Your task to perform on an android device: open app "DoorDash - Food Delivery" (install if not already installed) and go to login screen Image 0: 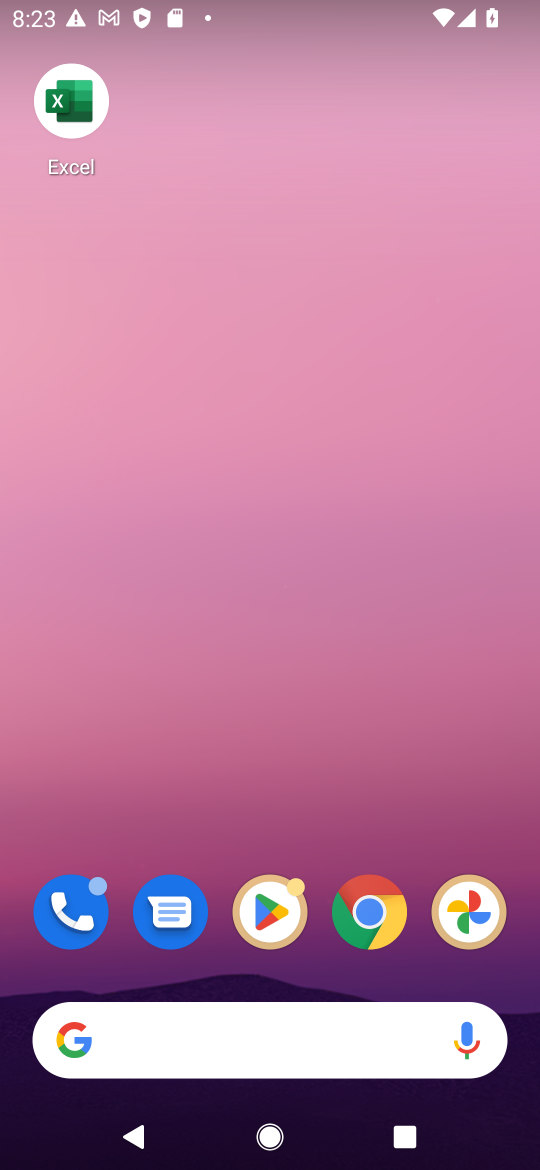
Step 0: drag from (156, 1043) to (104, 274)
Your task to perform on an android device: open app "DoorDash - Food Delivery" (install if not already installed) and go to login screen Image 1: 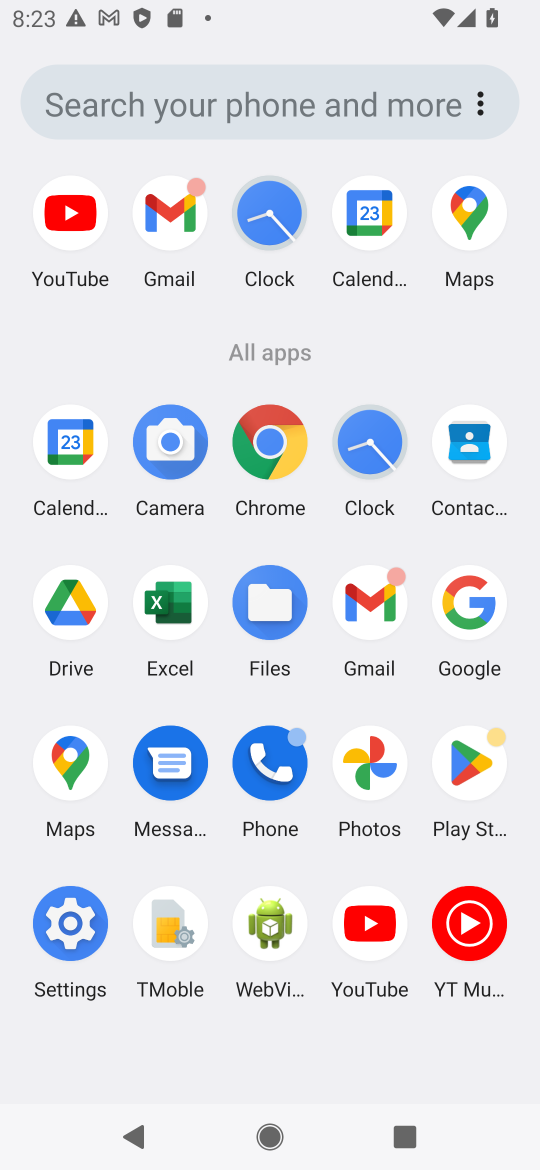
Step 1: click (465, 753)
Your task to perform on an android device: open app "DoorDash - Food Delivery" (install if not already installed) and go to login screen Image 2: 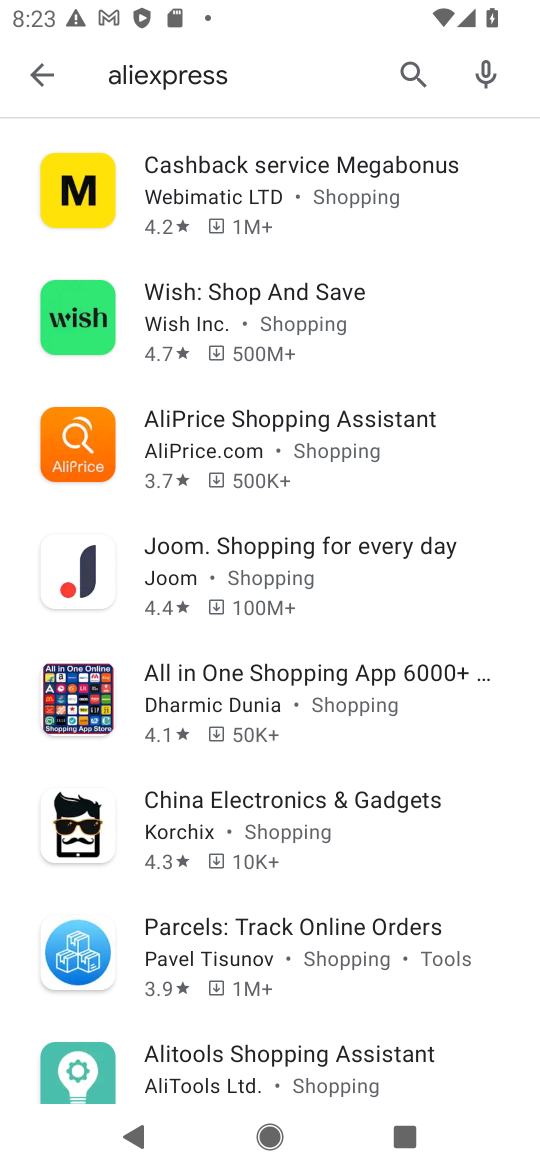
Step 2: press back button
Your task to perform on an android device: open app "DoorDash - Food Delivery" (install if not already installed) and go to login screen Image 3: 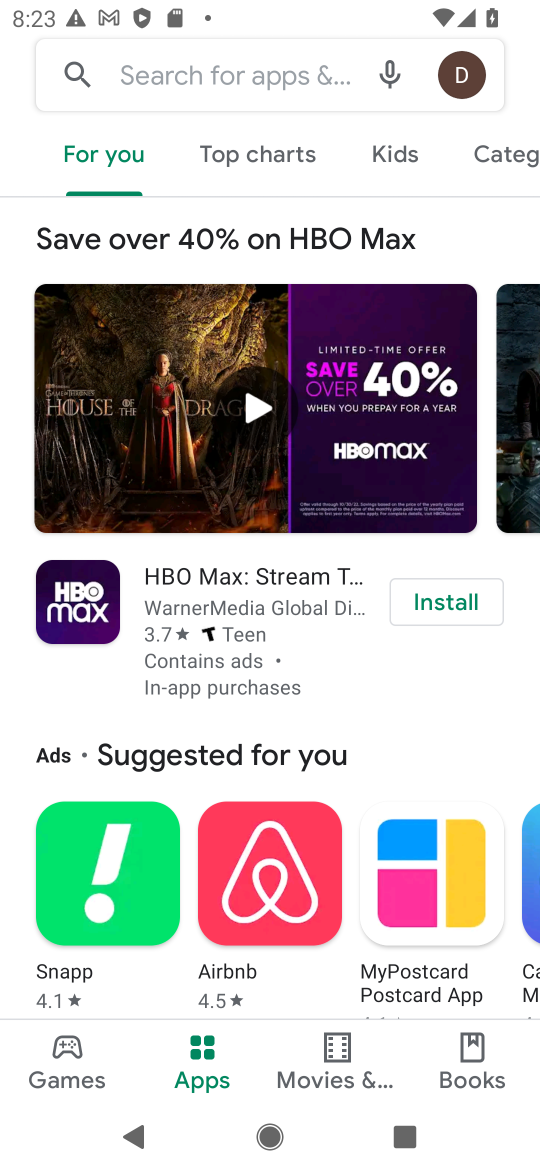
Step 3: click (243, 72)
Your task to perform on an android device: open app "DoorDash - Food Delivery" (install if not already installed) and go to login screen Image 4: 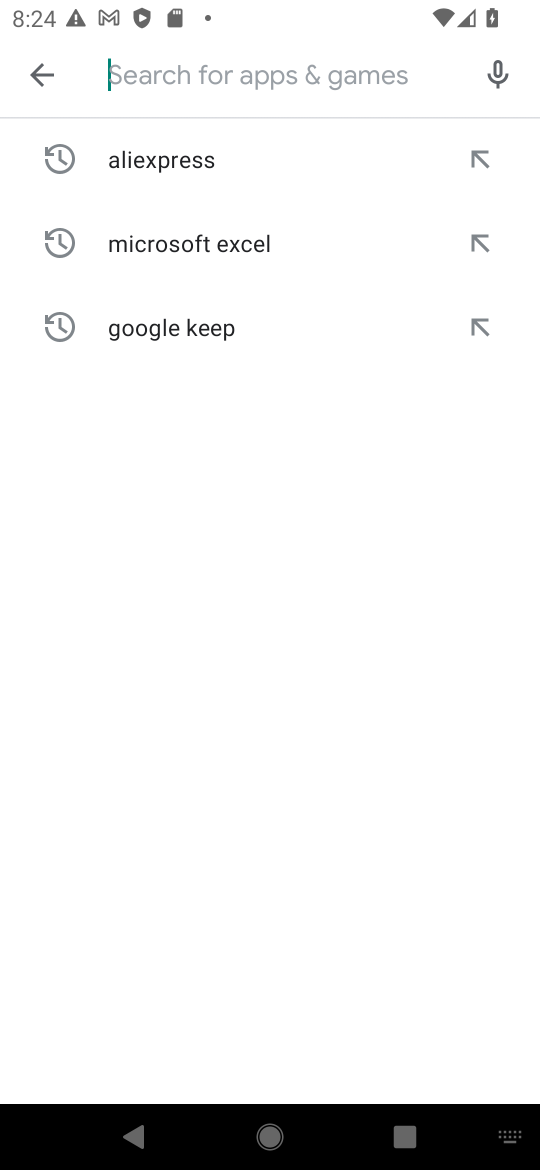
Step 4: type "DoorDash - Food Delivery"
Your task to perform on an android device: open app "DoorDash - Food Delivery" (install if not already installed) and go to login screen Image 5: 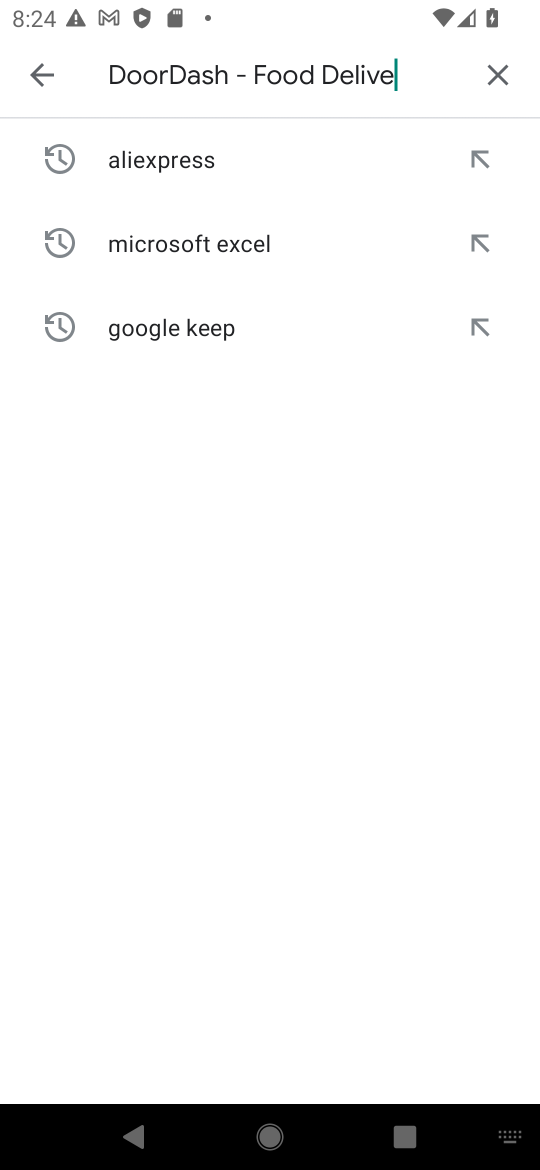
Step 5: type ""
Your task to perform on an android device: open app "DoorDash - Food Delivery" (install if not already installed) and go to login screen Image 6: 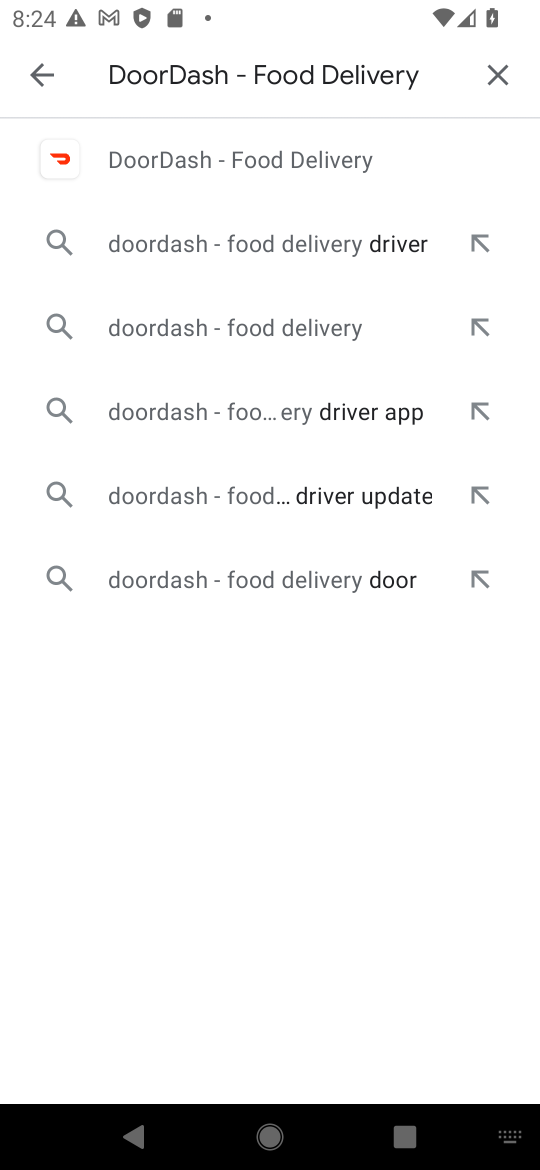
Step 6: click (229, 158)
Your task to perform on an android device: open app "DoorDash - Food Delivery" (install if not already installed) and go to login screen Image 7: 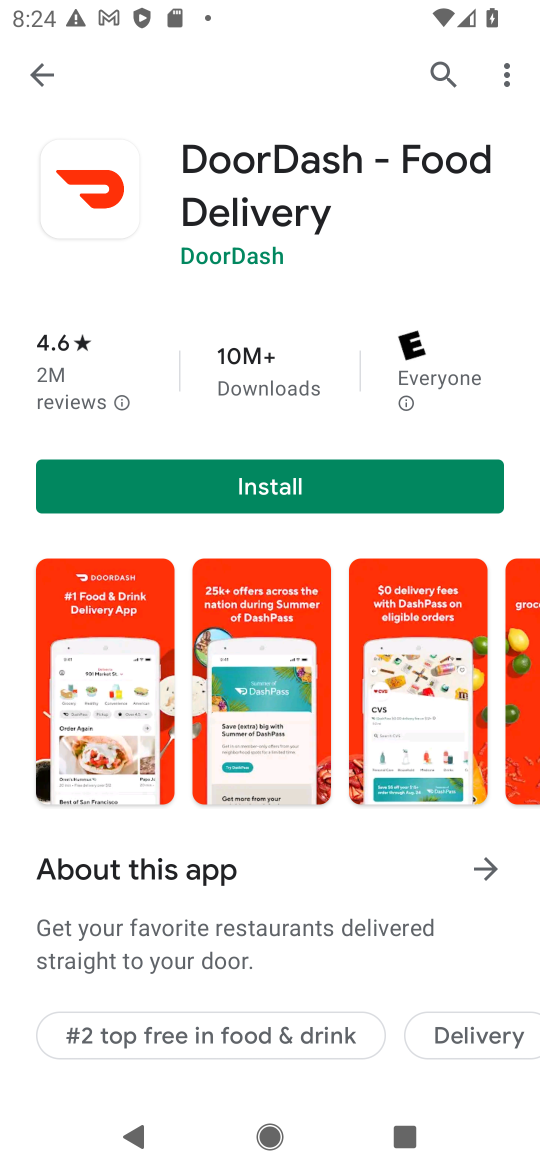
Step 7: click (287, 496)
Your task to perform on an android device: open app "DoorDash - Food Delivery" (install if not already installed) and go to login screen Image 8: 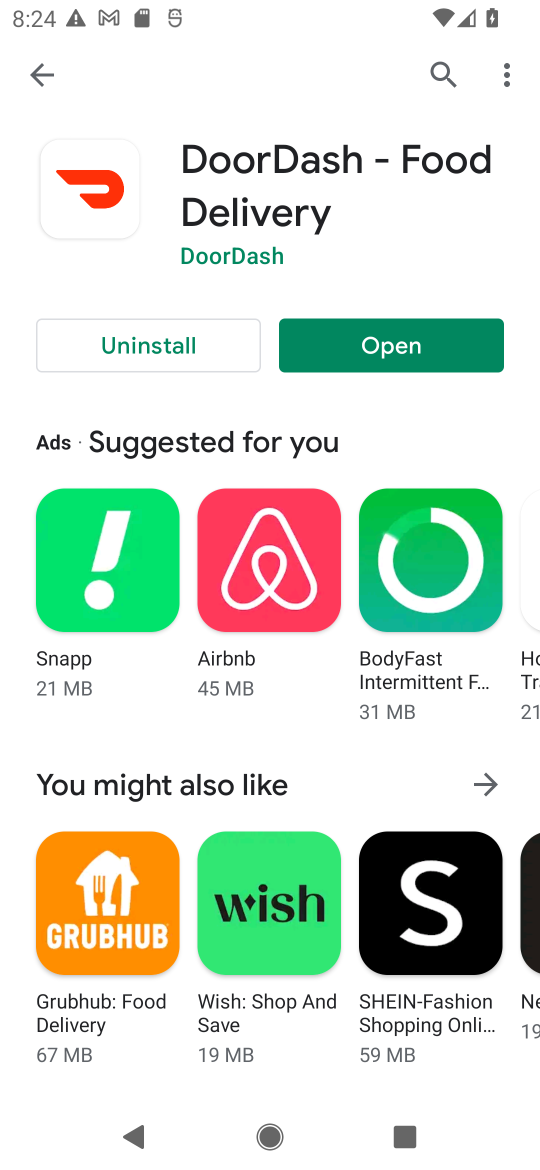
Step 8: click (389, 339)
Your task to perform on an android device: open app "DoorDash - Food Delivery" (install if not already installed) and go to login screen Image 9: 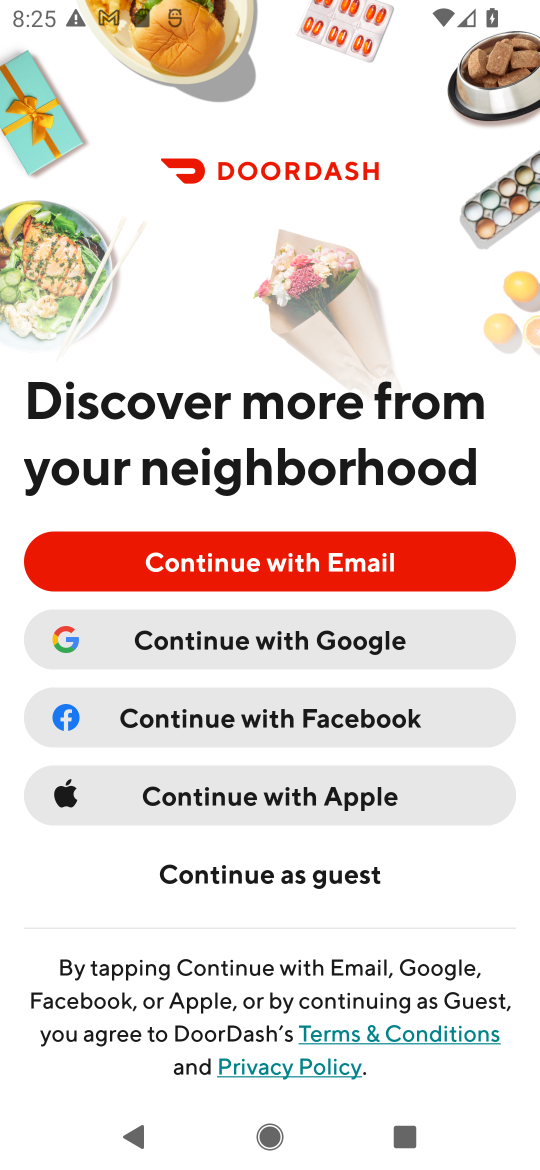
Step 9: click (307, 574)
Your task to perform on an android device: open app "DoorDash - Food Delivery" (install if not already installed) and go to login screen Image 10: 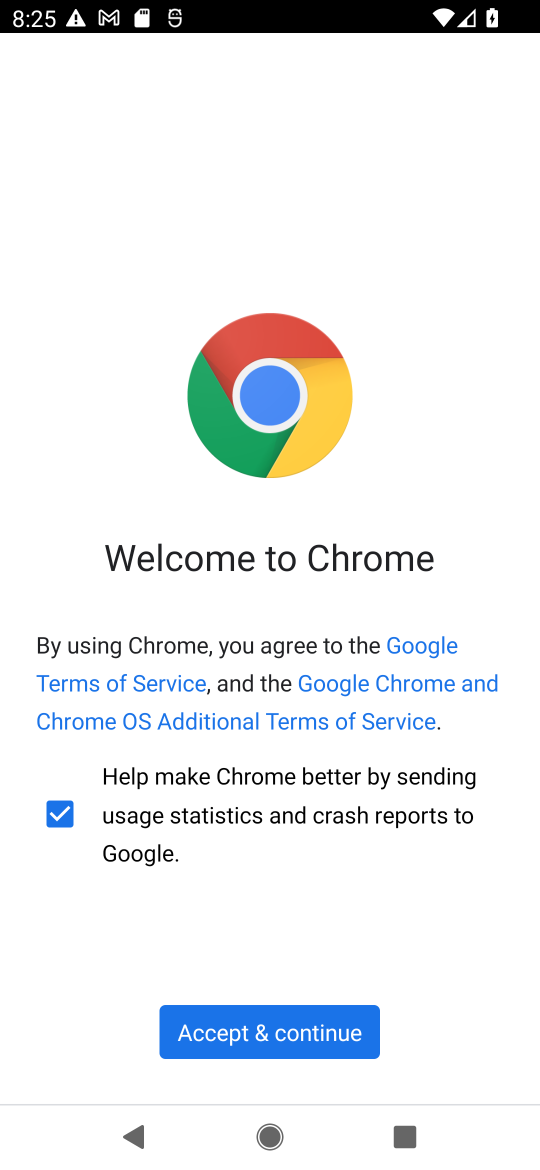
Step 10: task complete